Your task to perform on an android device: change text size in settings app Image 0: 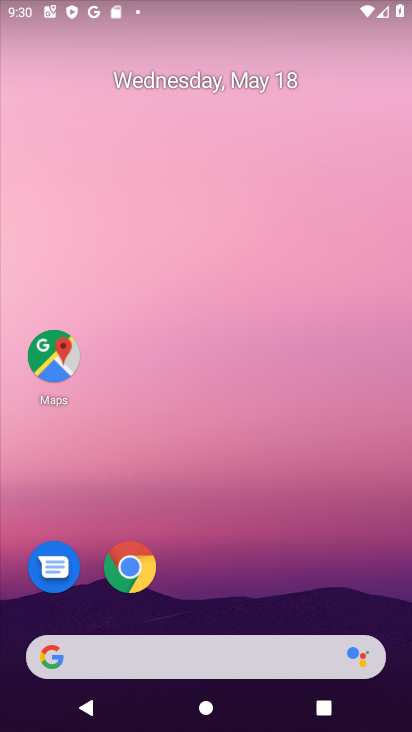
Step 0: drag from (198, 657) to (253, 116)
Your task to perform on an android device: change text size in settings app Image 1: 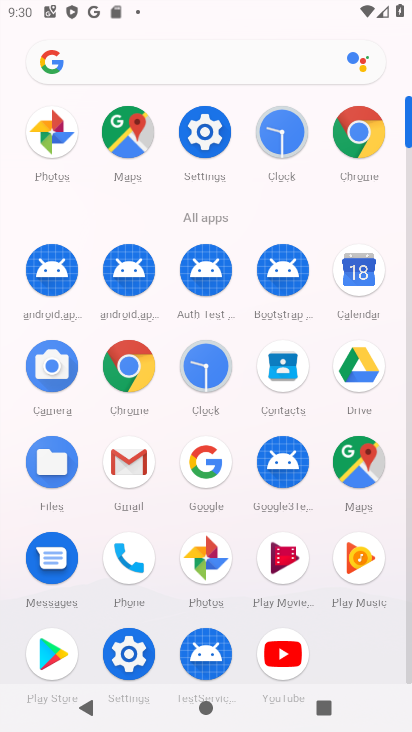
Step 1: click (205, 159)
Your task to perform on an android device: change text size in settings app Image 2: 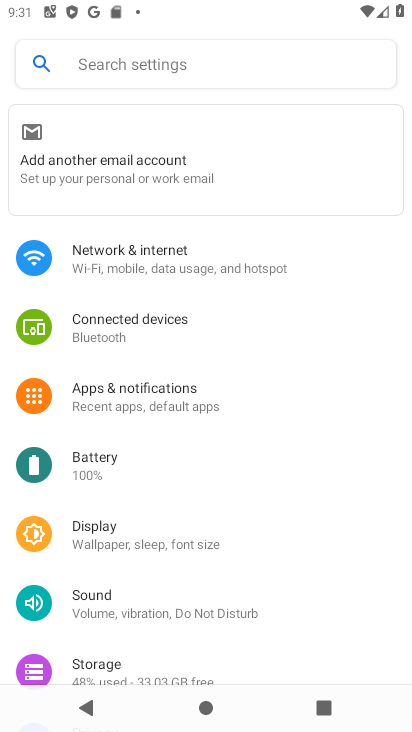
Step 2: drag from (176, 626) to (158, 114)
Your task to perform on an android device: change text size in settings app Image 3: 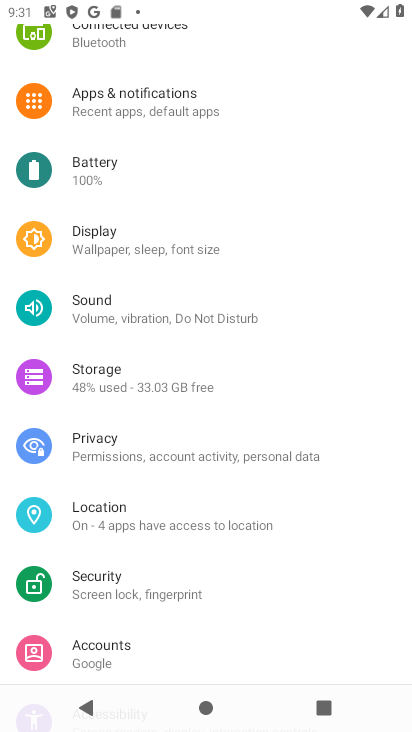
Step 3: drag from (172, 635) to (112, 174)
Your task to perform on an android device: change text size in settings app Image 4: 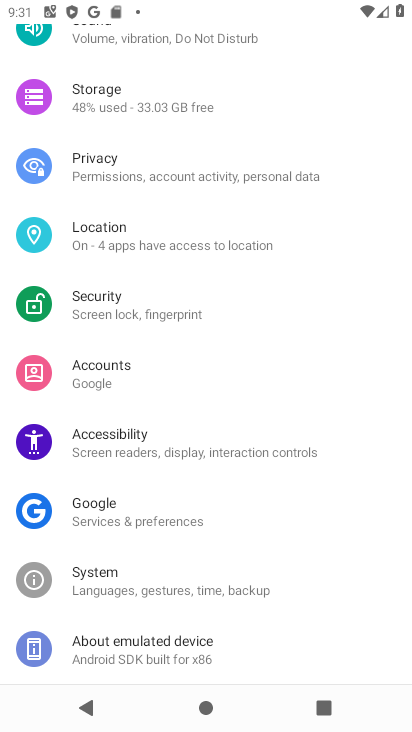
Step 4: drag from (116, 119) to (84, 565)
Your task to perform on an android device: change text size in settings app Image 5: 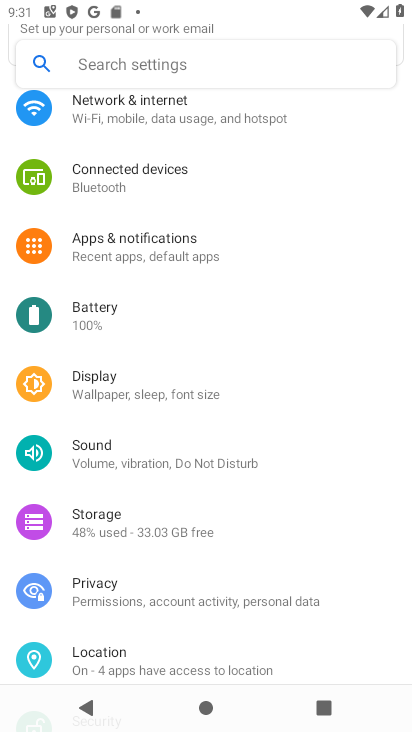
Step 5: click (134, 383)
Your task to perform on an android device: change text size in settings app Image 6: 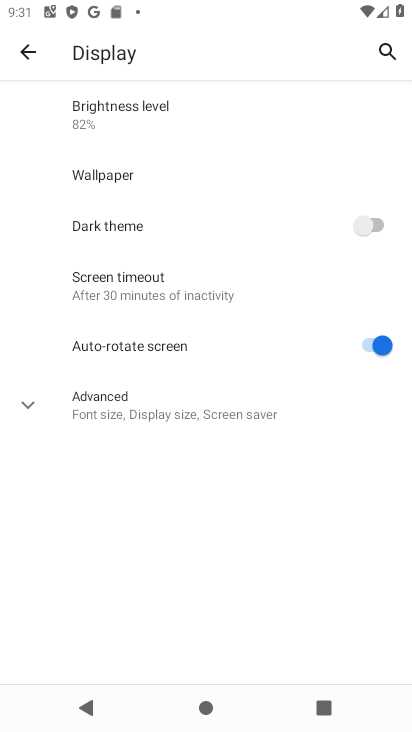
Step 6: click (121, 407)
Your task to perform on an android device: change text size in settings app Image 7: 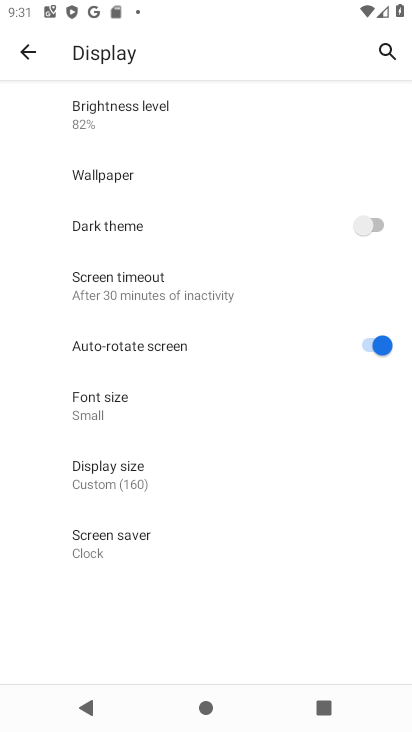
Step 7: click (112, 410)
Your task to perform on an android device: change text size in settings app Image 8: 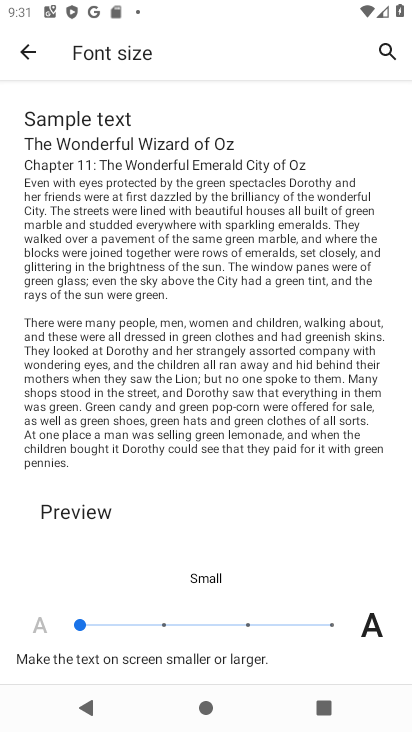
Step 8: click (164, 617)
Your task to perform on an android device: change text size in settings app Image 9: 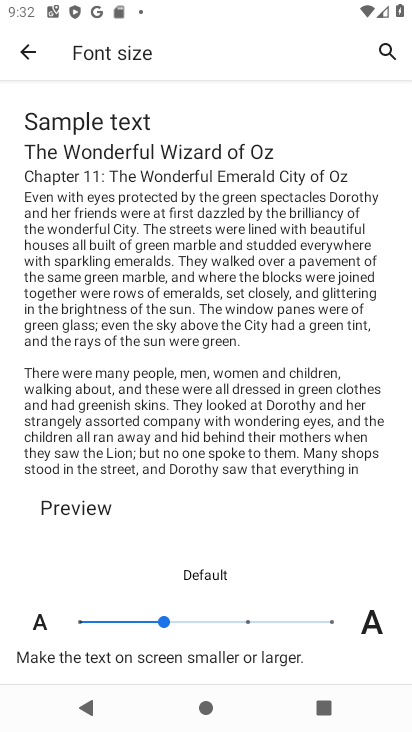
Step 9: task complete